Your task to perform on an android device: What's the weather going to be this weekend? Image 0: 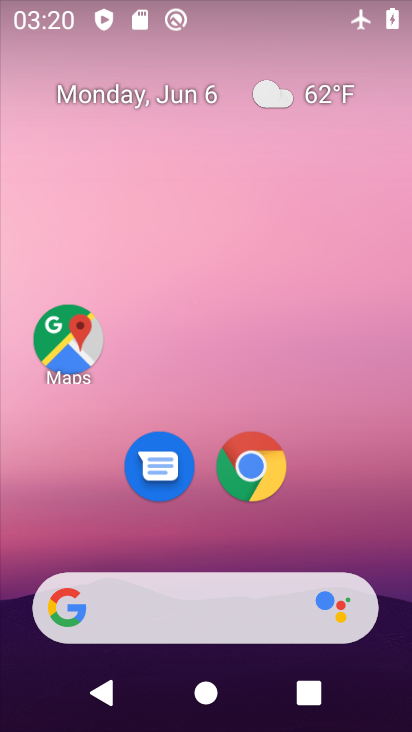
Step 0: drag from (342, 464) to (309, 73)
Your task to perform on an android device: What's the weather going to be this weekend? Image 1: 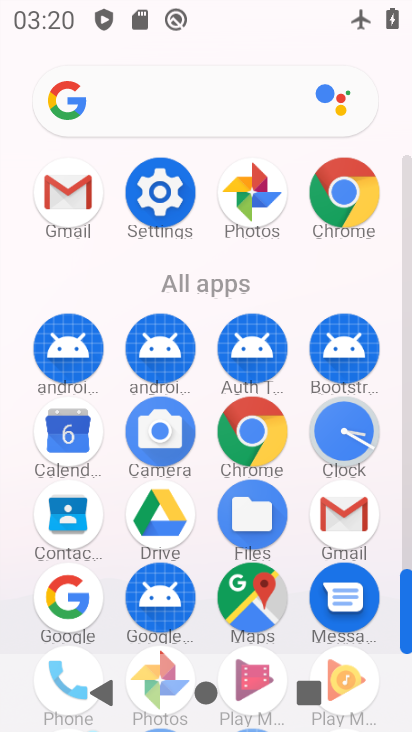
Step 1: press home button
Your task to perform on an android device: What's the weather going to be this weekend? Image 2: 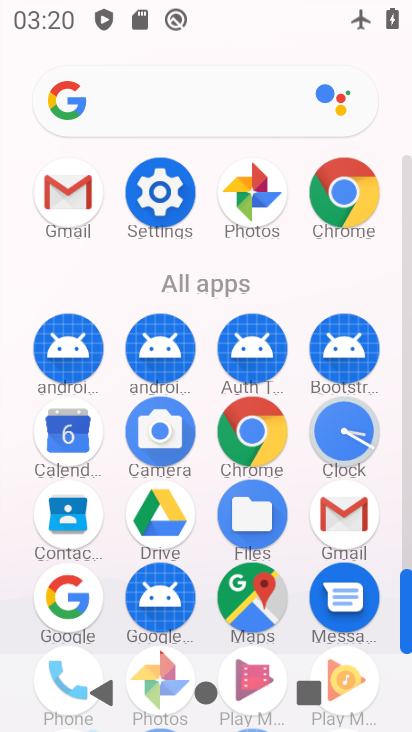
Step 2: press home button
Your task to perform on an android device: What's the weather going to be this weekend? Image 3: 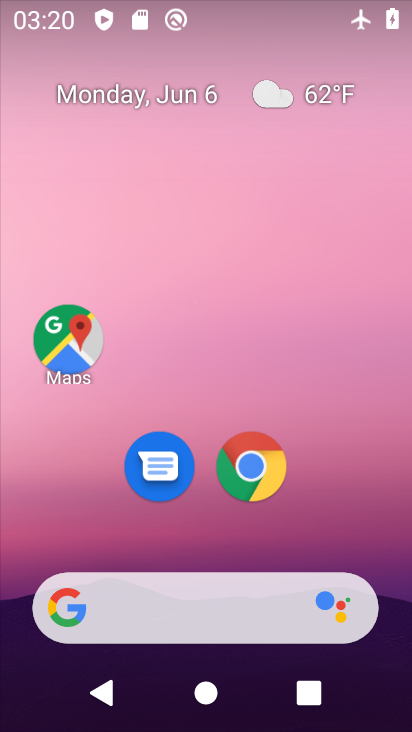
Step 3: click (336, 87)
Your task to perform on an android device: What's the weather going to be this weekend? Image 4: 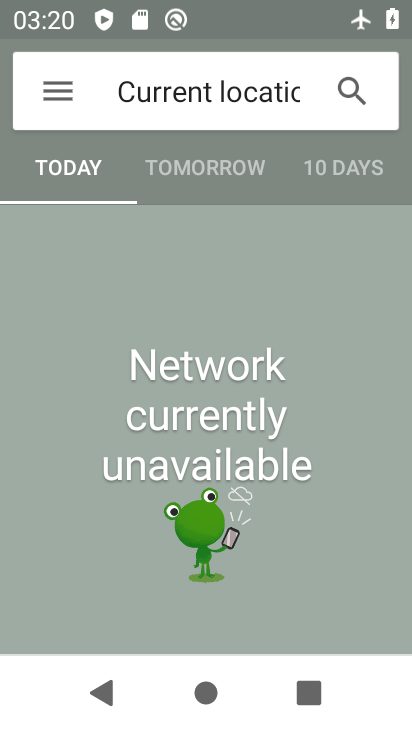
Step 4: click (362, 175)
Your task to perform on an android device: What's the weather going to be this weekend? Image 5: 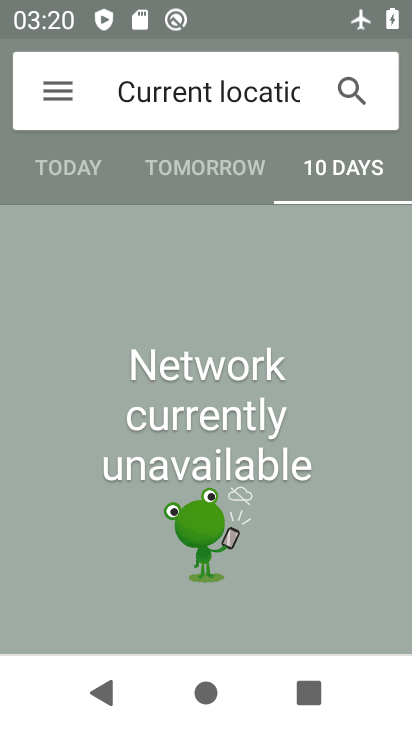
Step 5: task complete